Your task to perform on an android device: Go to Google maps Image 0: 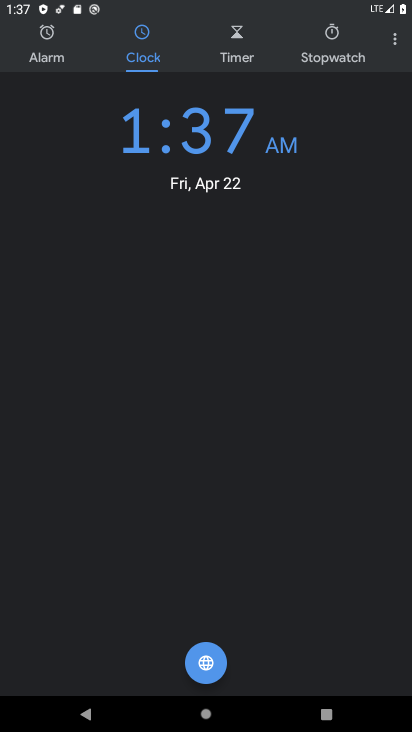
Step 0: press home button
Your task to perform on an android device: Go to Google maps Image 1: 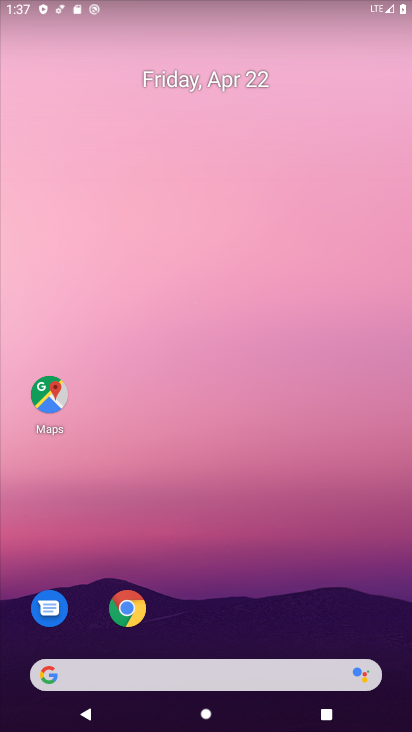
Step 1: drag from (273, 685) to (281, 209)
Your task to perform on an android device: Go to Google maps Image 2: 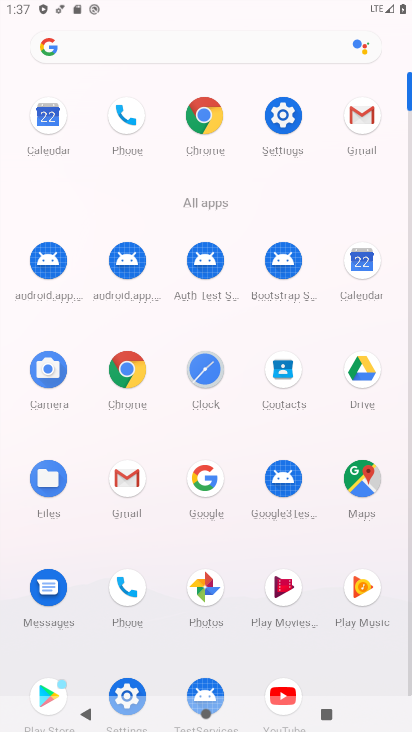
Step 2: click (206, 125)
Your task to perform on an android device: Go to Google maps Image 3: 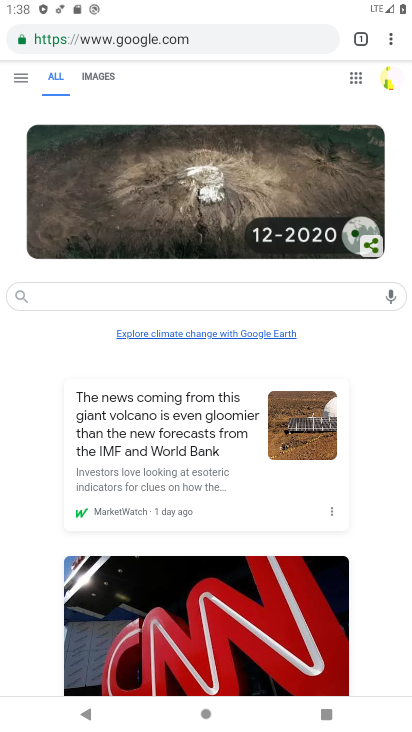
Step 3: press home button
Your task to perform on an android device: Go to Google maps Image 4: 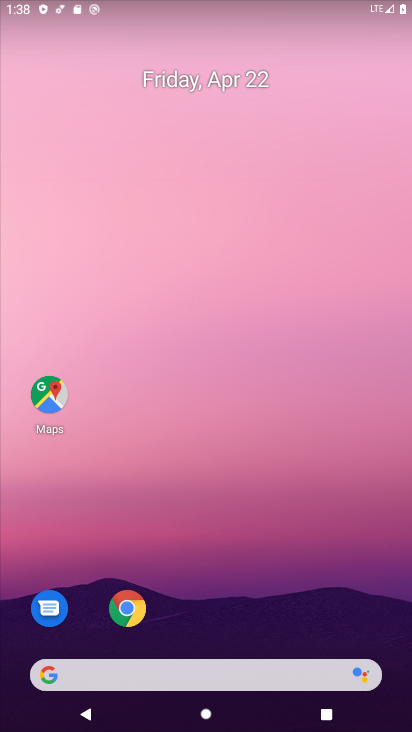
Step 4: drag from (260, 698) to (294, 195)
Your task to perform on an android device: Go to Google maps Image 5: 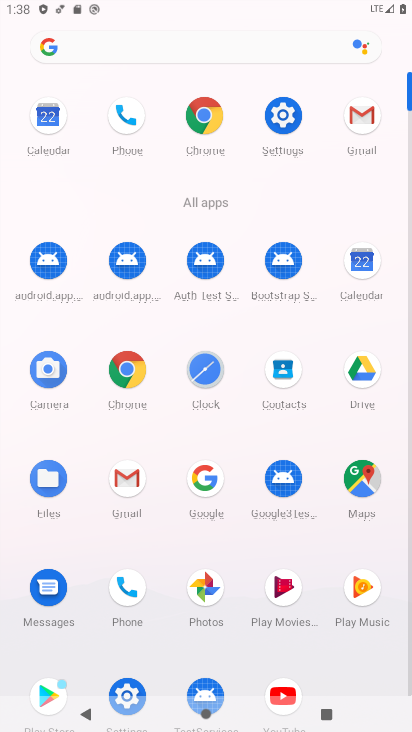
Step 5: click (362, 497)
Your task to perform on an android device: Go to Google maps Image 6: 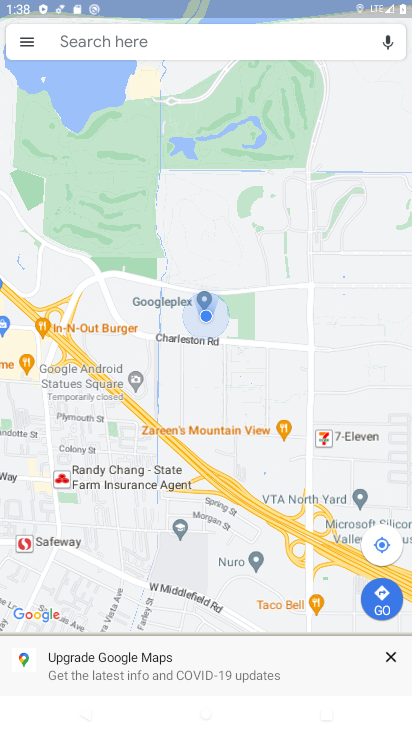
Step 6: click (246, 46)
Your task to perform on an android device: Go to Google maps Image 7: 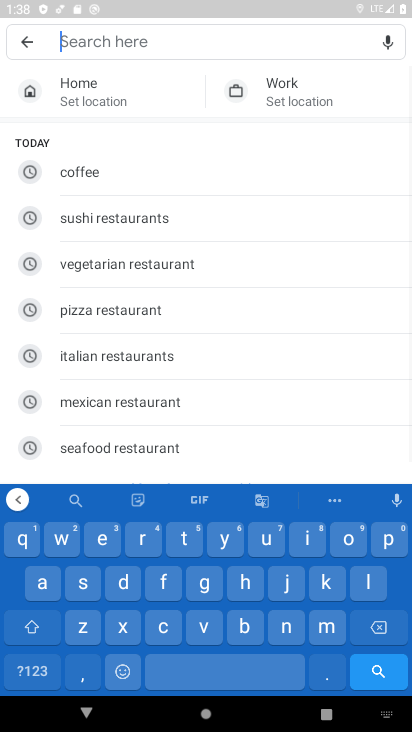
Step 7: click (17, 46)
Your task to perform on an android device: Go to Google maps Image 8: 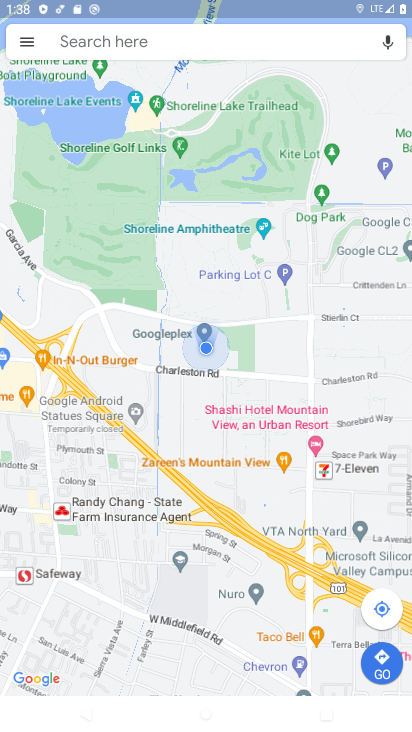
Step 8: click (387, 597)
Your task to perform on an android device: Go to Google maps Image 9: 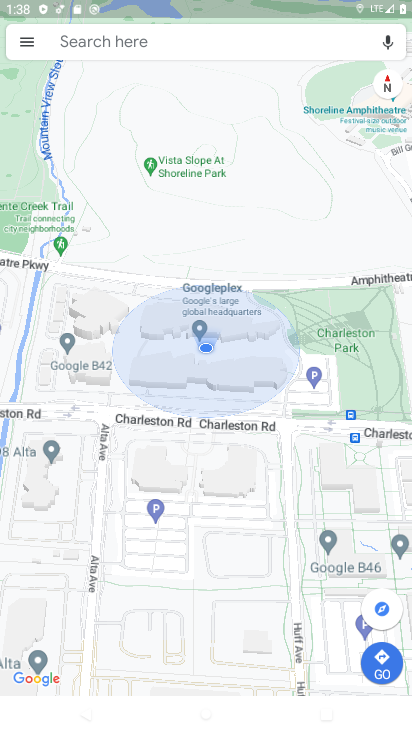
Step 9: task complete